Your task to perform on an android device: Go to Google Image 0: 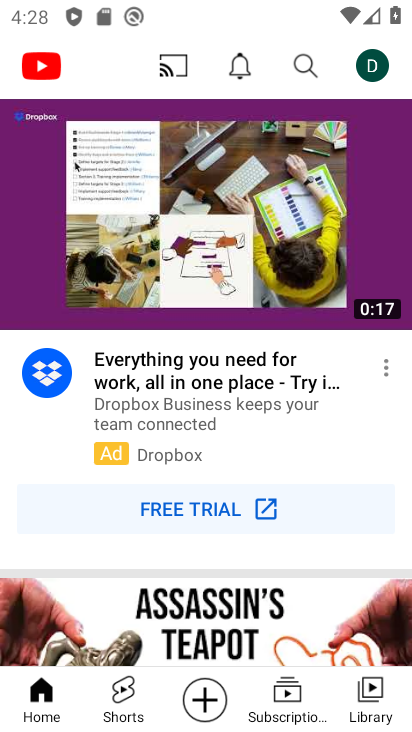
Step 0: press home button
Your task to perform on an android device: Go to Google Image 1: 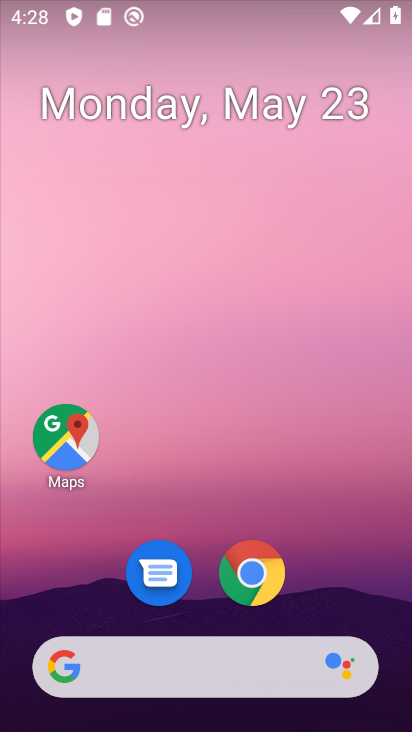
Step 1: drag from (207, 725) to (211, 57)
Your task to perform on an android device: Go to Google Image 2: 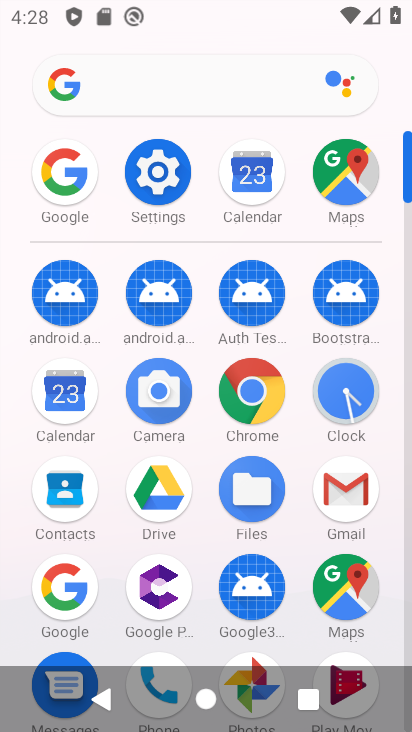
Step 2: click (68, 588)
Your task to perform on an android device: Go to Google Image 3: 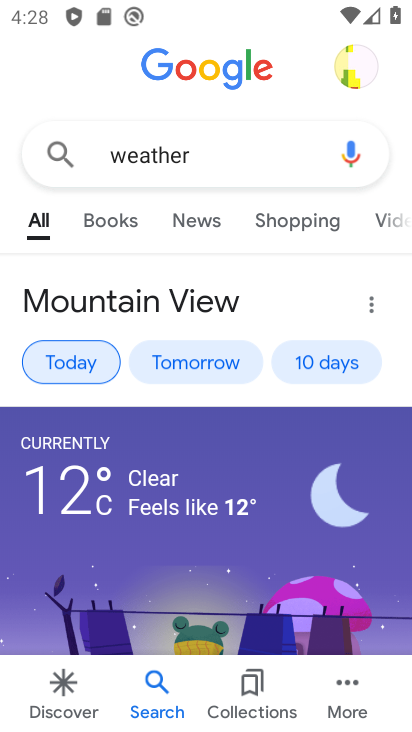
Step 3: task complete